Your task to perform on an android device: Clear the shopping cart on walmart.com. Search for "logitech g502" on walmart.com, select the first entry, add it to the cart, then select checkout. Image 0: 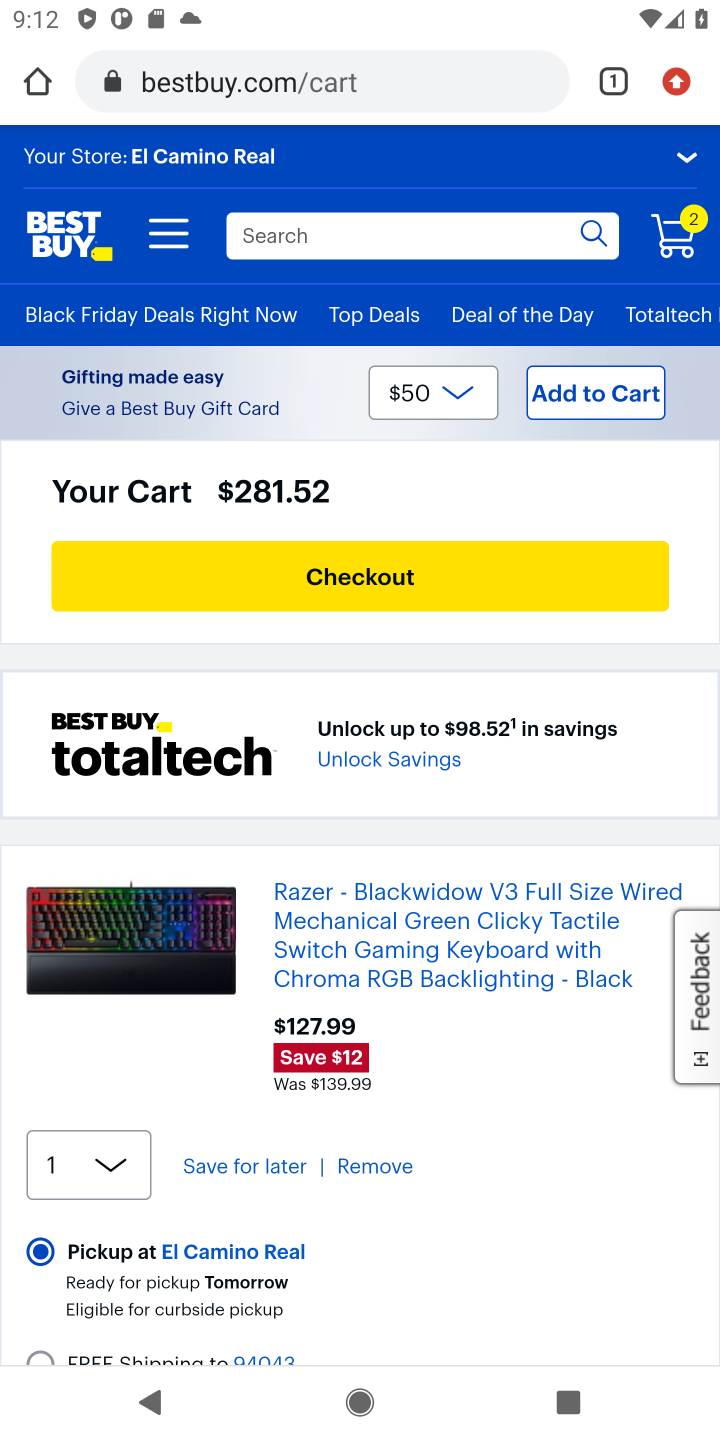
Step 0: click (380, 65)
Your task to perform on an android device: Clear the shopping cart on walmart.com. Search for "logitech g502" on walmart.com, select the first entry, add it to the cart, then select checkout. Image 1: 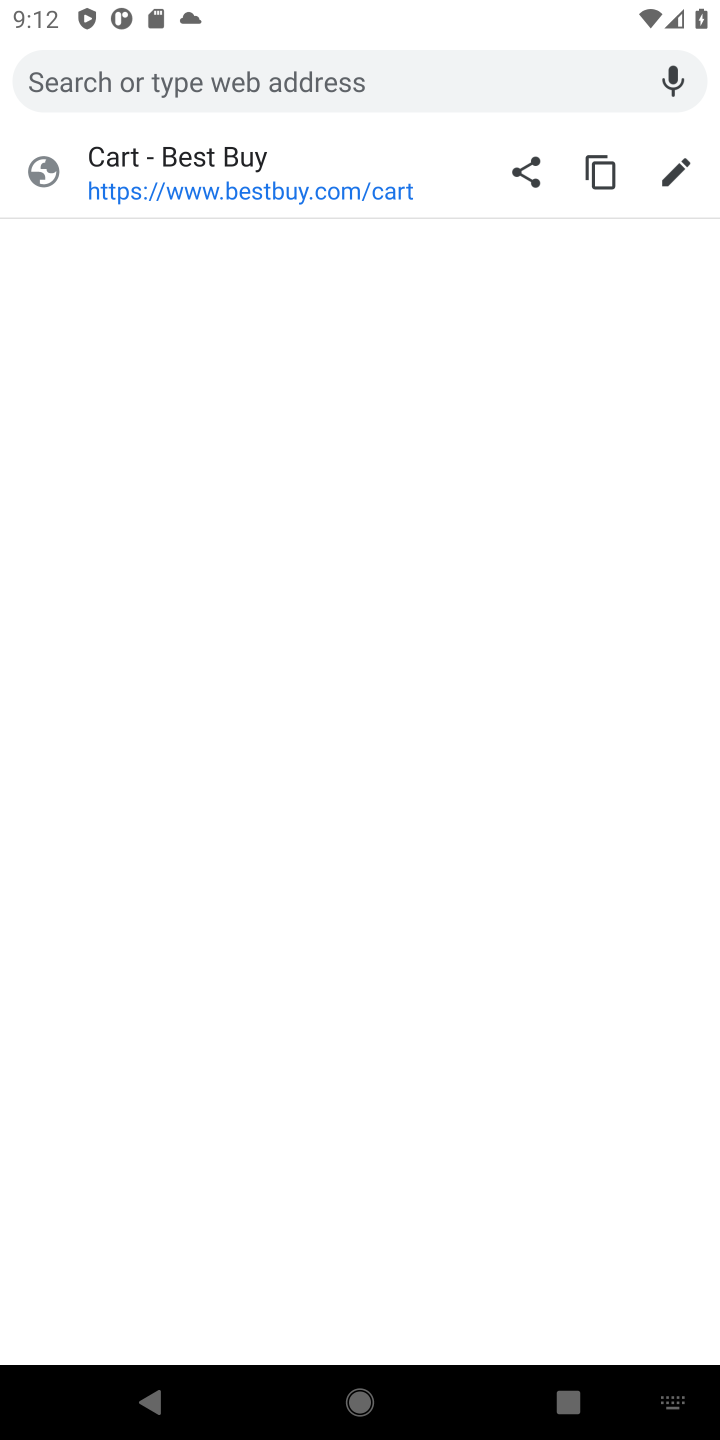
Step 1: type "walmart.com"
Your task to perform on an android device: Clear the shopping cart on walmart.com. Search for "logitech g502" on walmart.com, select the first entry, add it to the cart, then select checkout. Image 2: 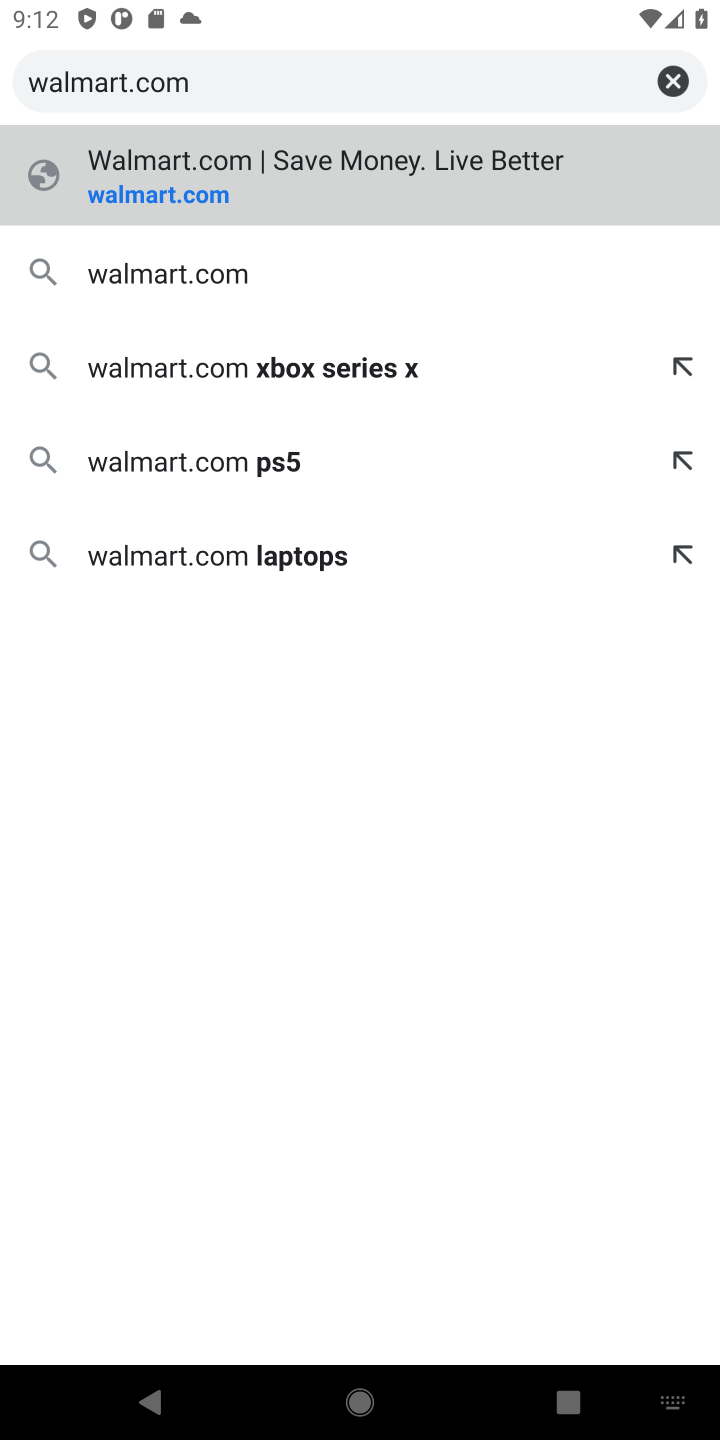
Step 2: click (226, 274)
Your task to perform on an android device: Clear the shopping cart on walmart.com. Search for "logitech g502" on walmart.com, select the first entry, add it to the cart, then select checkout. Image 3: 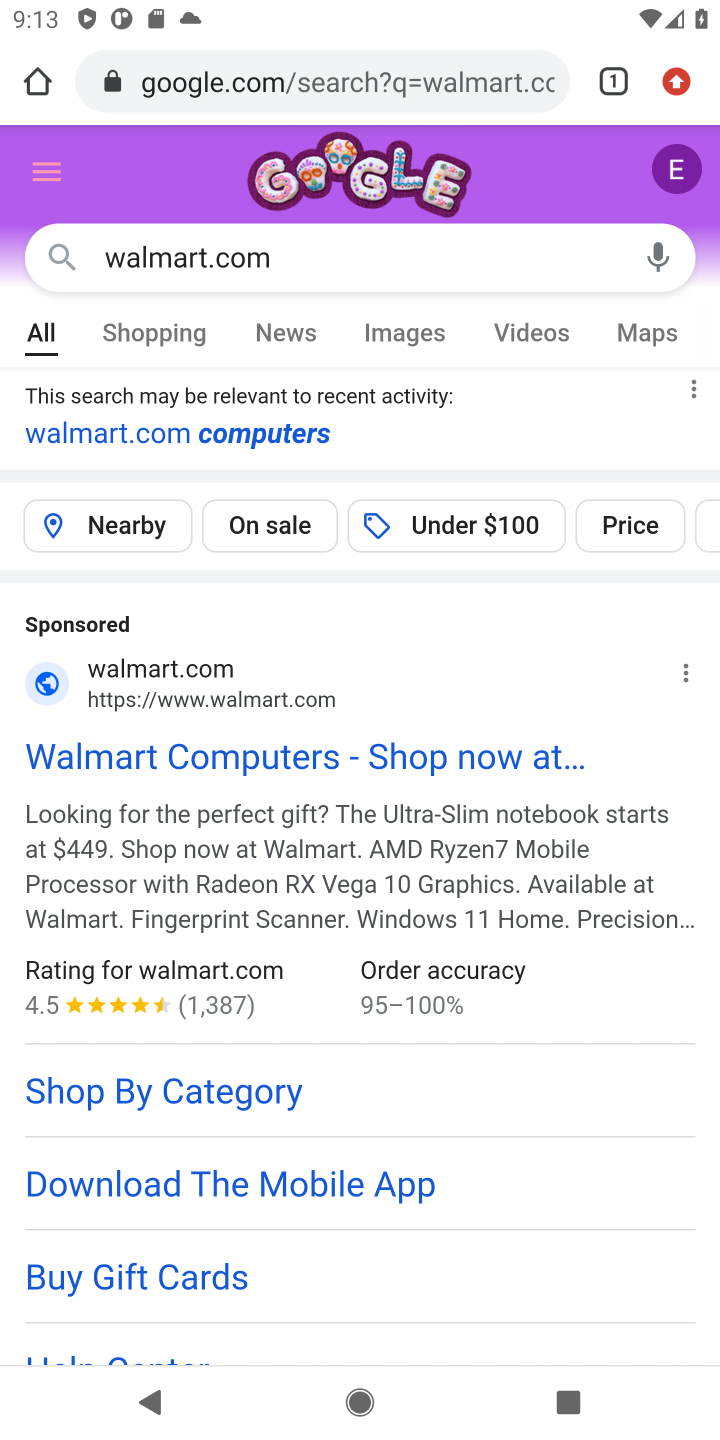
Step 3: drag from (379, 1080) to (425, 348)
Your task to perform on an android device: Clear the shopping cart on walmart.com. Search for "logitech g502" on walmart.com, select the first entry, add it to the cart, then select checkout. Image 4: 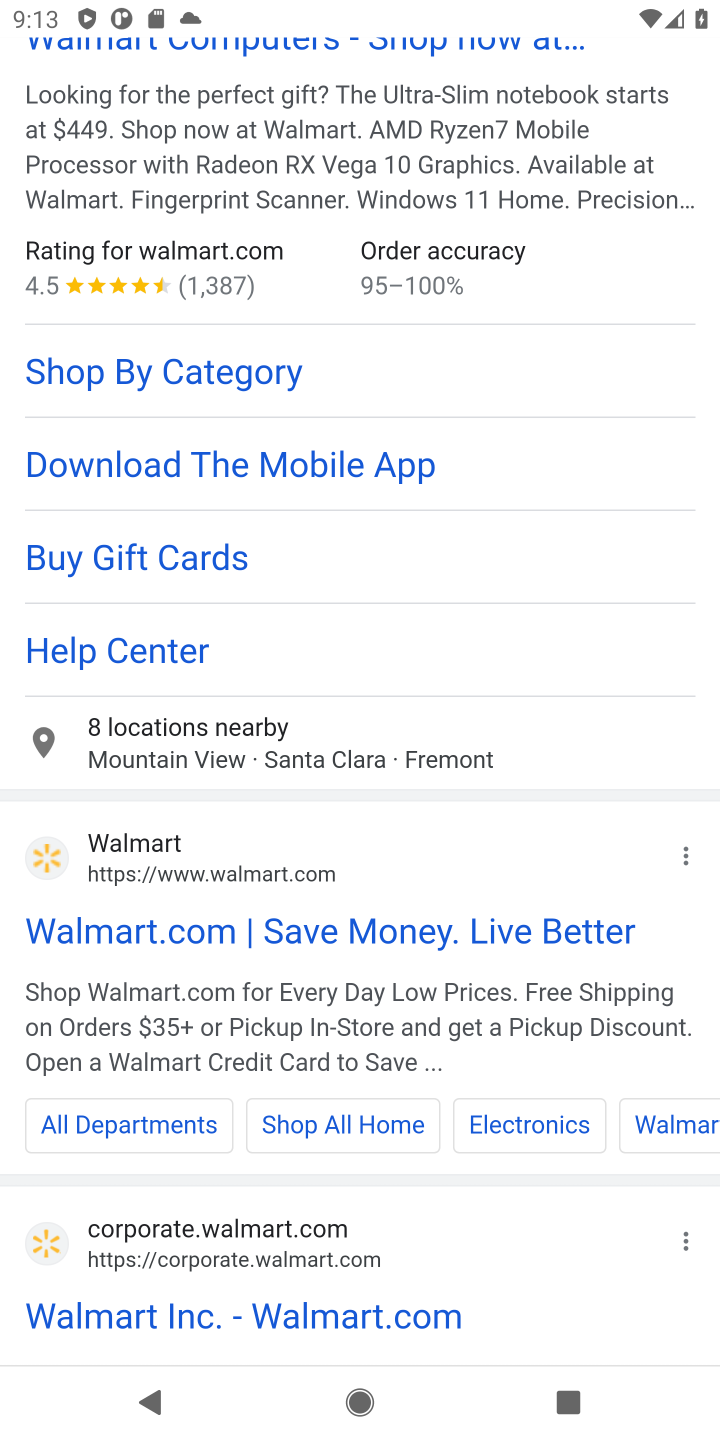
Step 4: click (181, 1318)
Your task to perform on an android device: Clear the shopping cart on walmart.com. Search for "logitech g502" on walmart.com, select the first entry, add it to the cart, then select checkout. Image 5: 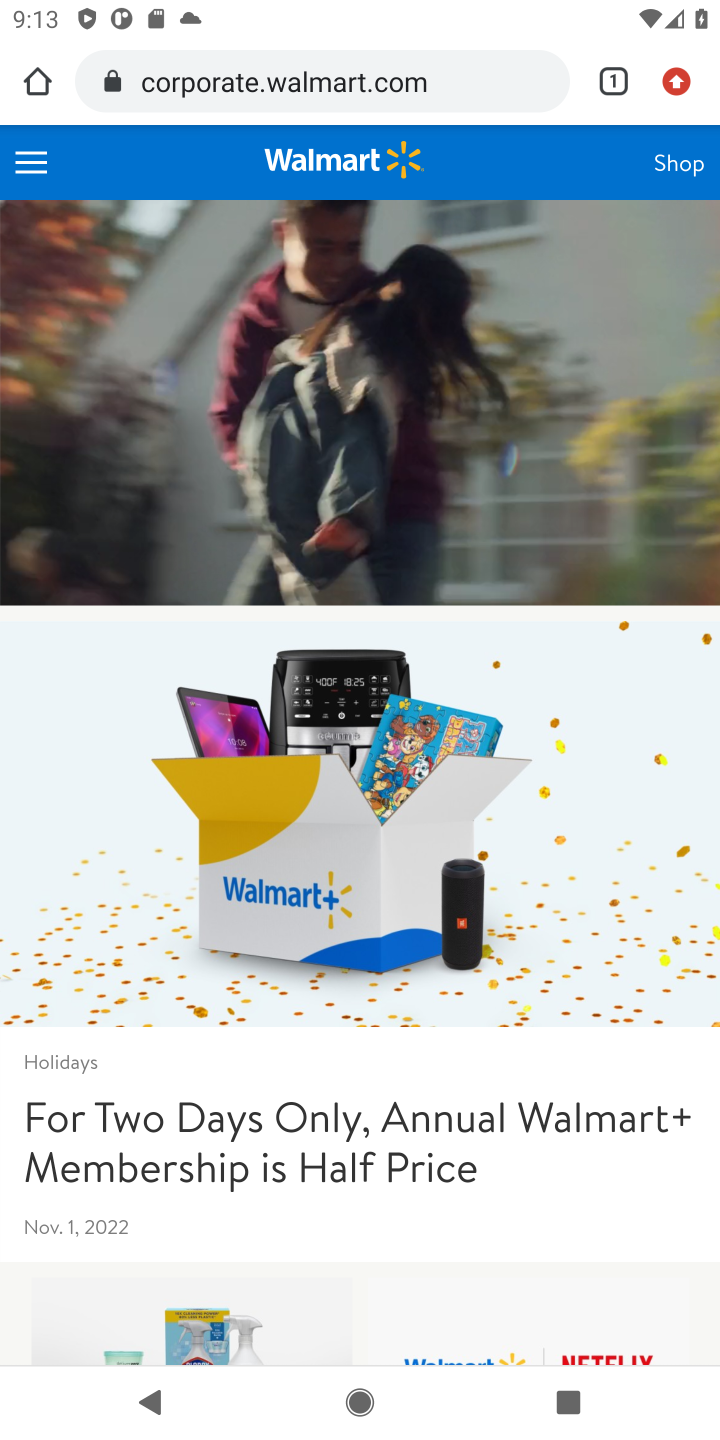
Step 5: click (683, 163)
Your task to perform on an android device: Clear the shopping cart on walmart.com. Search for "logitech g502" on walmart.com, select the first entry, add it to the cart, then select checkout. Image 6: 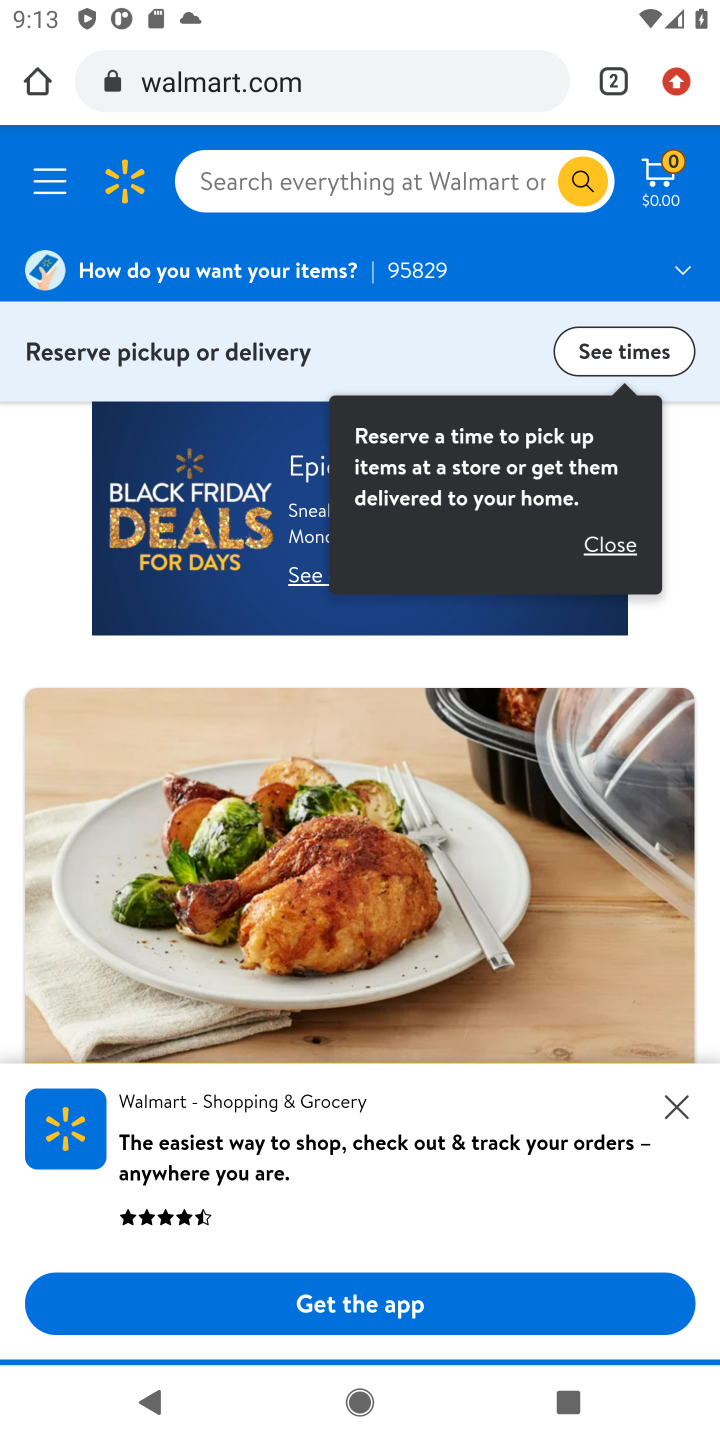
Step 6: click (658, 173)
Your task to perform on an android device: Clear the shopping cart on walmart.com. Search for "logitech g502" on walmart.com, select the first entry, add it to the cart, then select checkout. Image 7: 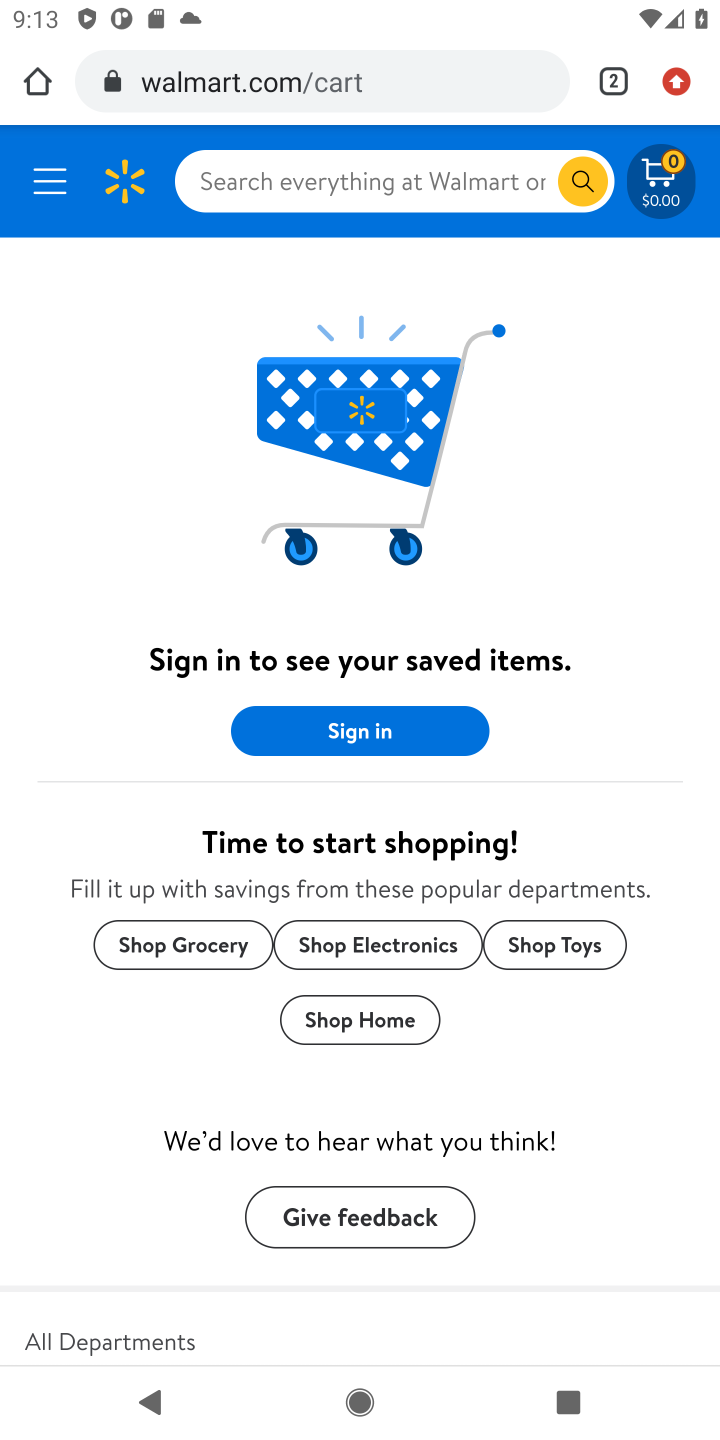
Step 7: click (362, 183)
Your task to perform on an android device: Clear the shopping cart on walmart.com. Search for "logitech g502" on walmart.com, select the first entry, add it to the cart, then select checkout. Image 8: 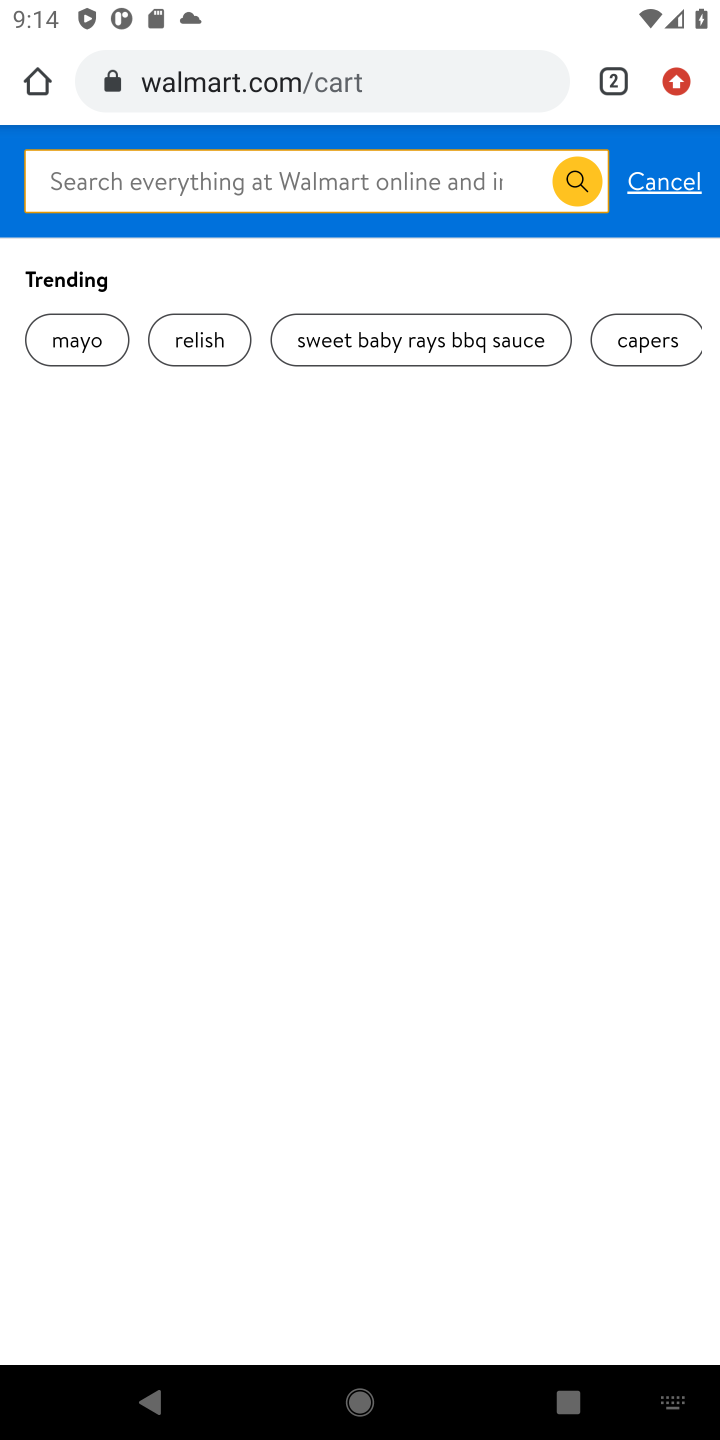
Step 8: type "logitech g502"
Your task to perform on an android device: Clear the shopping cart on walmart.com. Search for "logitech g502" on walmart.com, select the first entry, add it to the cart, then select checkout. Image 9: 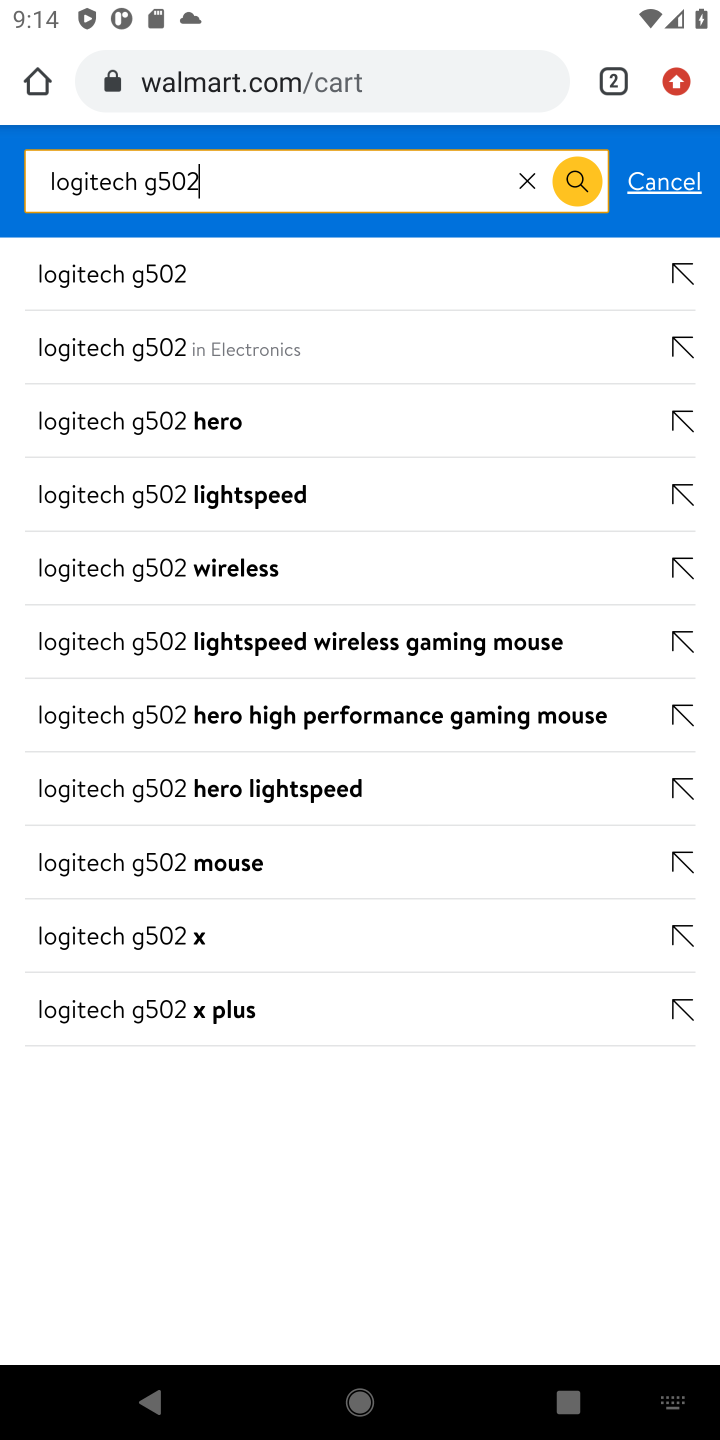
Step 9: click (129, 278)
Your task to perform on an android device: Clear the shopping cart on walmart.com. Search for "logitech g502" on walmart.com, select the first entry, add it to the cart, then select checkout. Image 10: 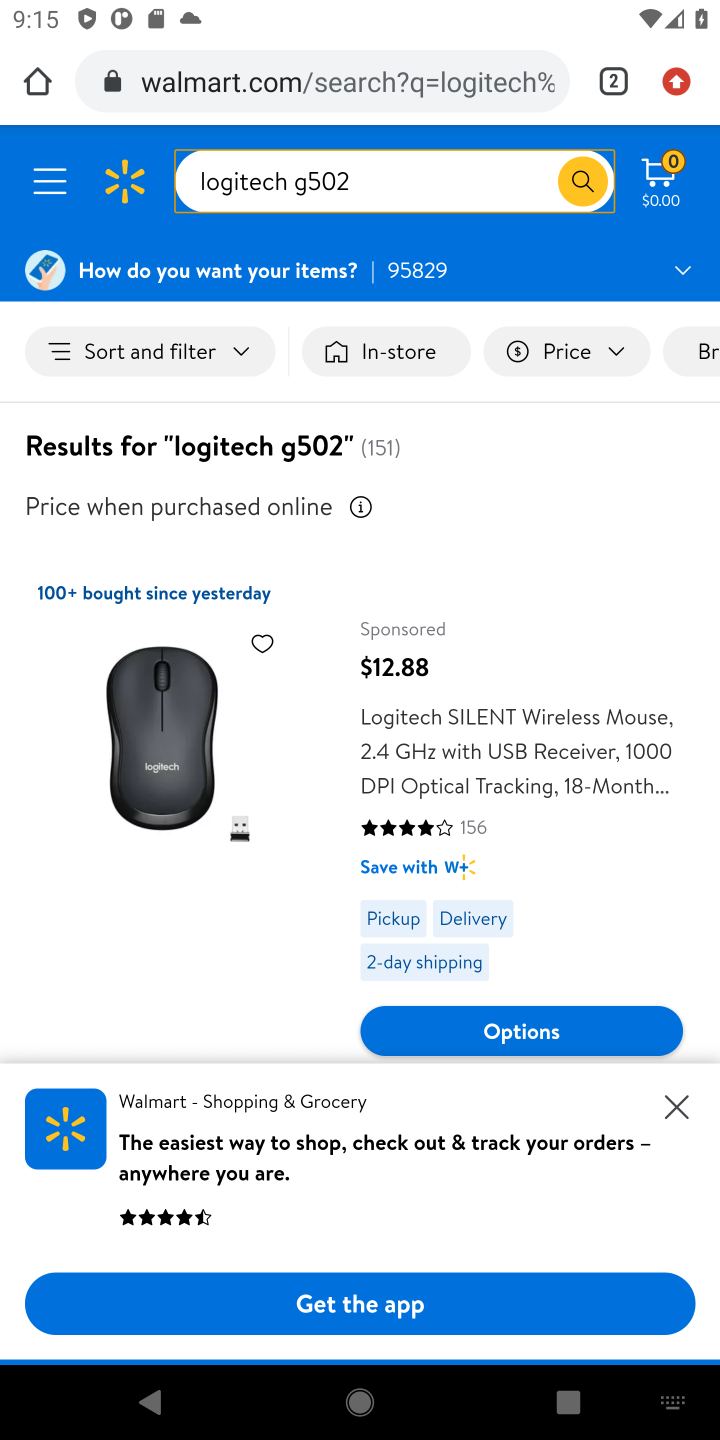
Step 10: click (676, 1113)
Your task to perform on an android device: Clear the shopping cart on walmart.com. Search for "logitech g502" on walmart.com, select the first entry, add it to the cart, then select checkout. Image 11: 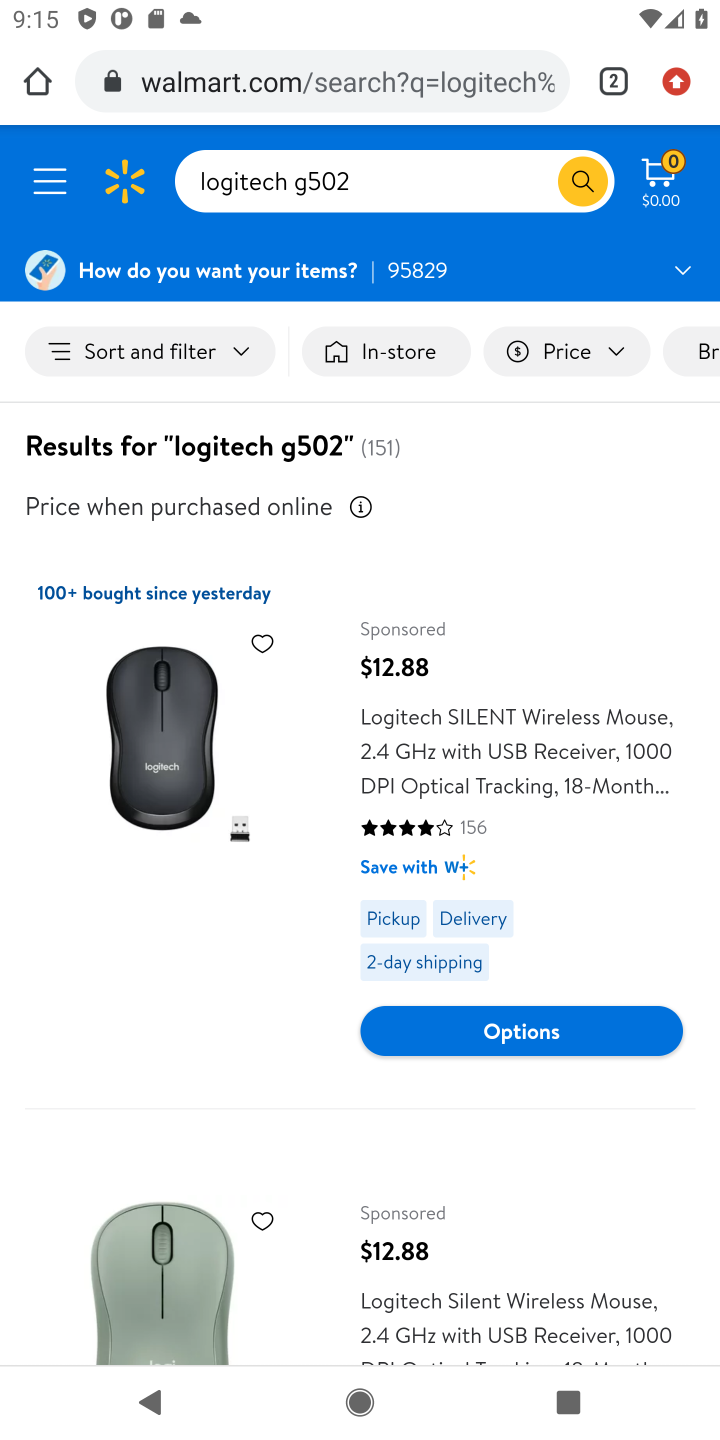
Step 11: click (438, 737)
Your task to perform on an android device: Clear the shopping cart on walmart.com. Search for "logitech g502" on walmart.com, select the first entry, add it to the cart, then select checkout. Image 12: 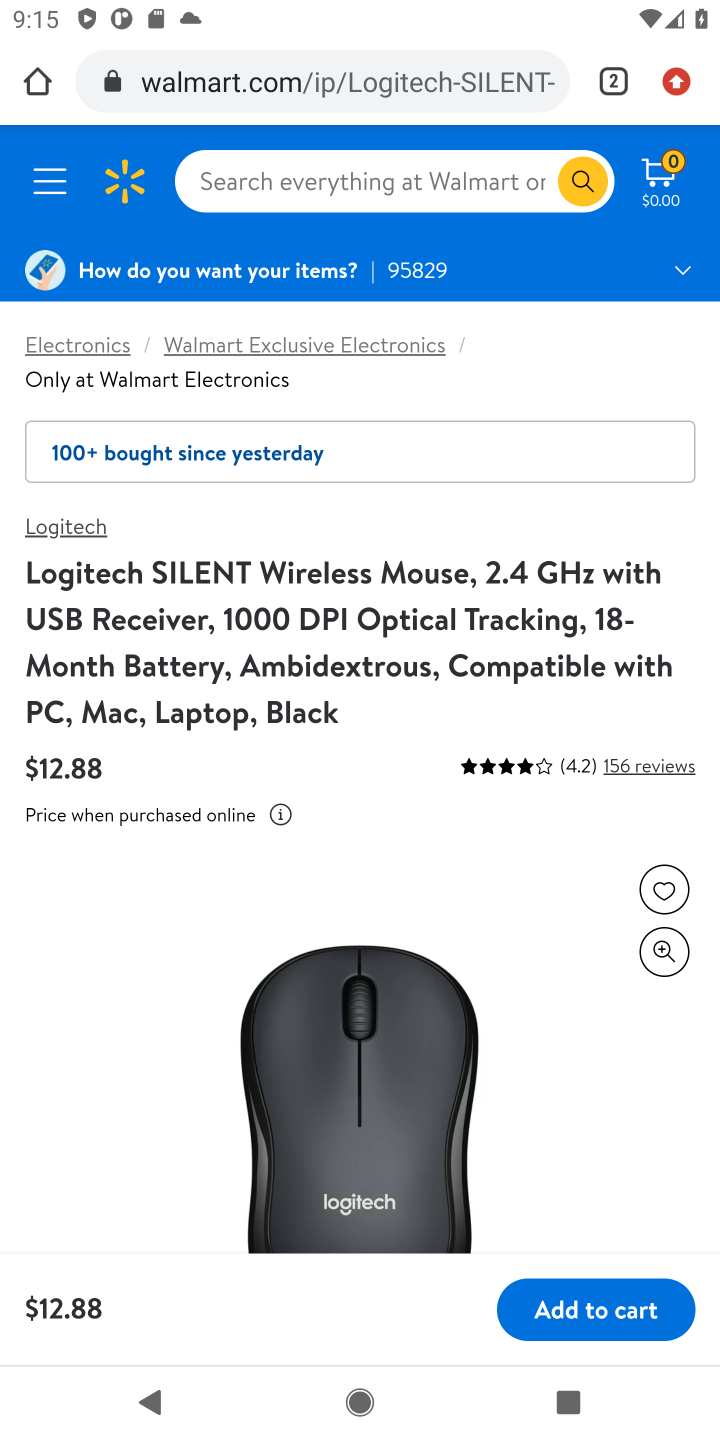
Step 12: click (595, 1324)
Your task to perform on an android device: Clear the shopping cart on walmart.com. Search for "logitech g502" on walmart.com, select the first entry, add it to the cart, then select checkout. Image 13: 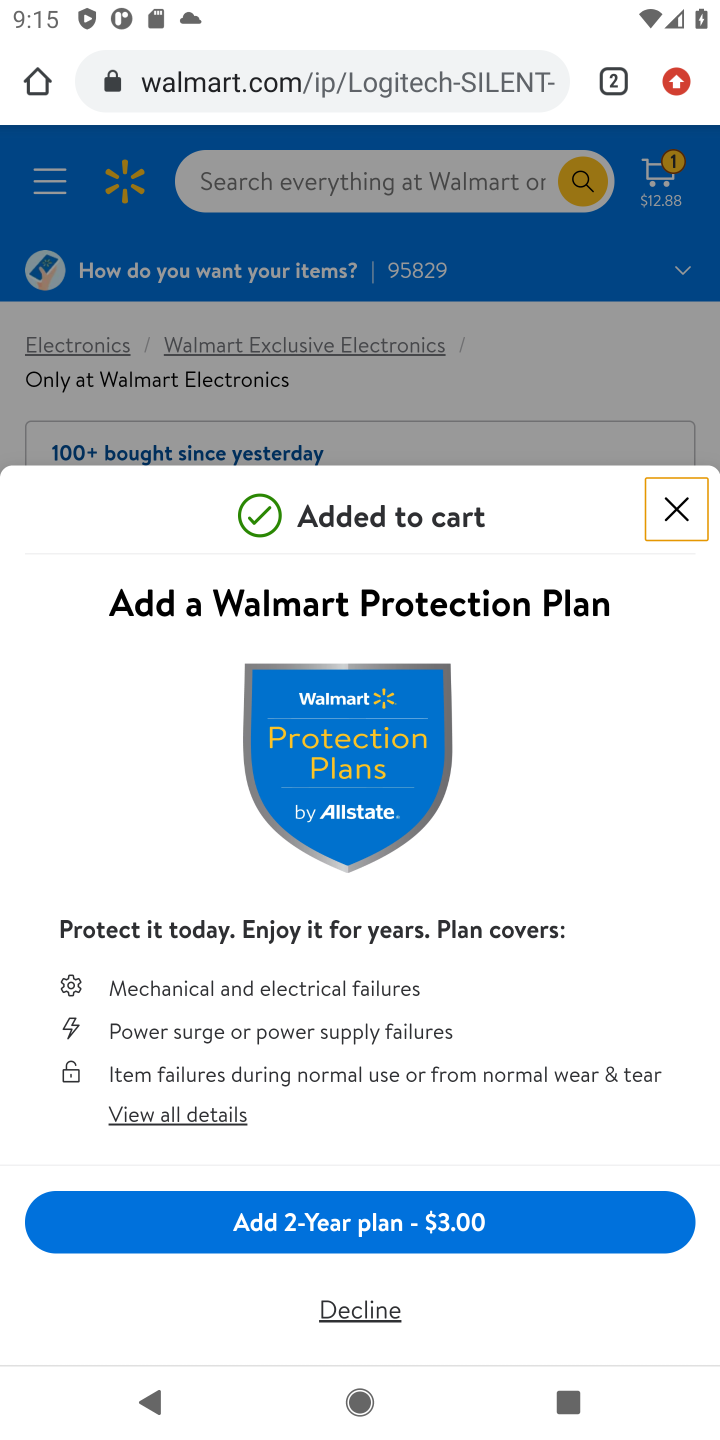
Step 13: click (380, 1312)
Your task to perform on an android device: Clear the shopping cart on walmart.com. Search for "logitech g502" on walmart.com, select the first entry, add it to the cart, then select checkout. Image 14: 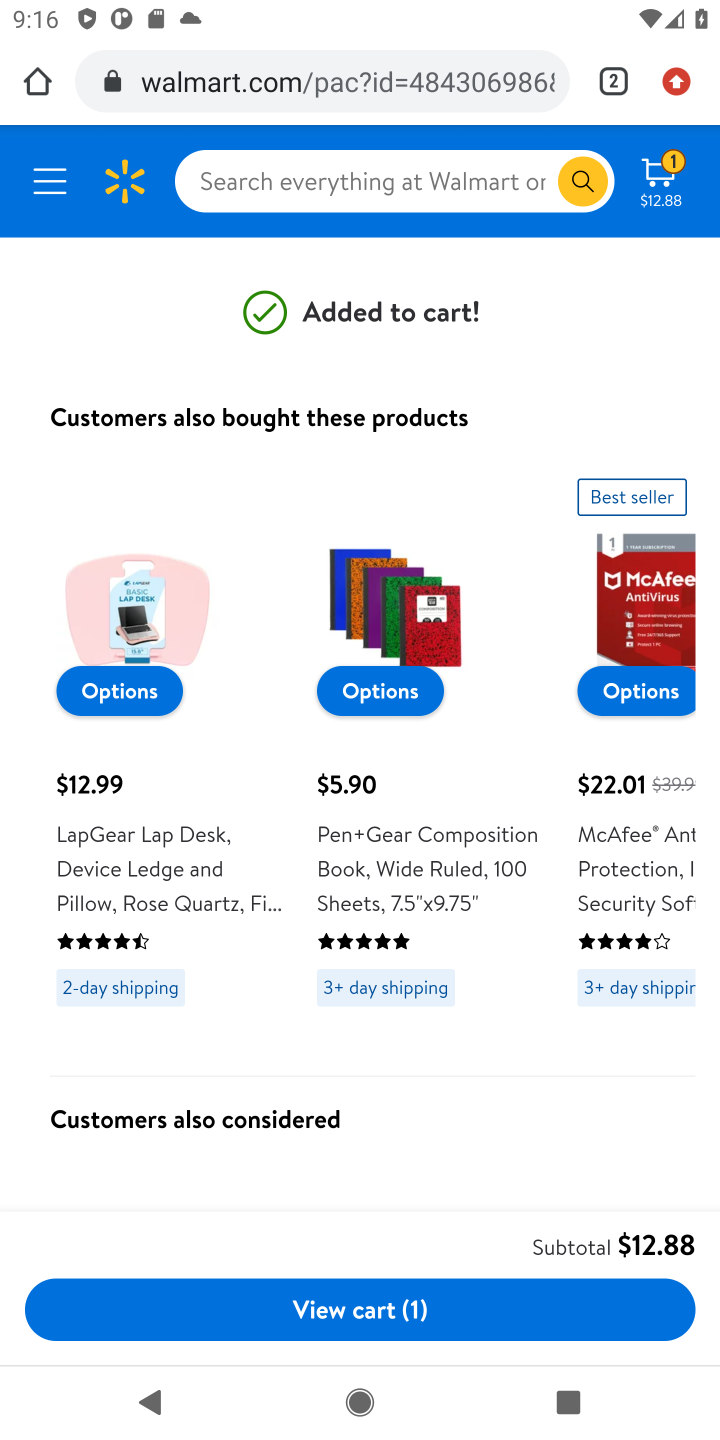
Step 14: click (422, 1313)
Your task to perform on an android device: Clear the shopping cart on walmart.com. Search for "logitech g502" on walmart.com, select the first entry, add it to the cart, then select checkout. Image 15: 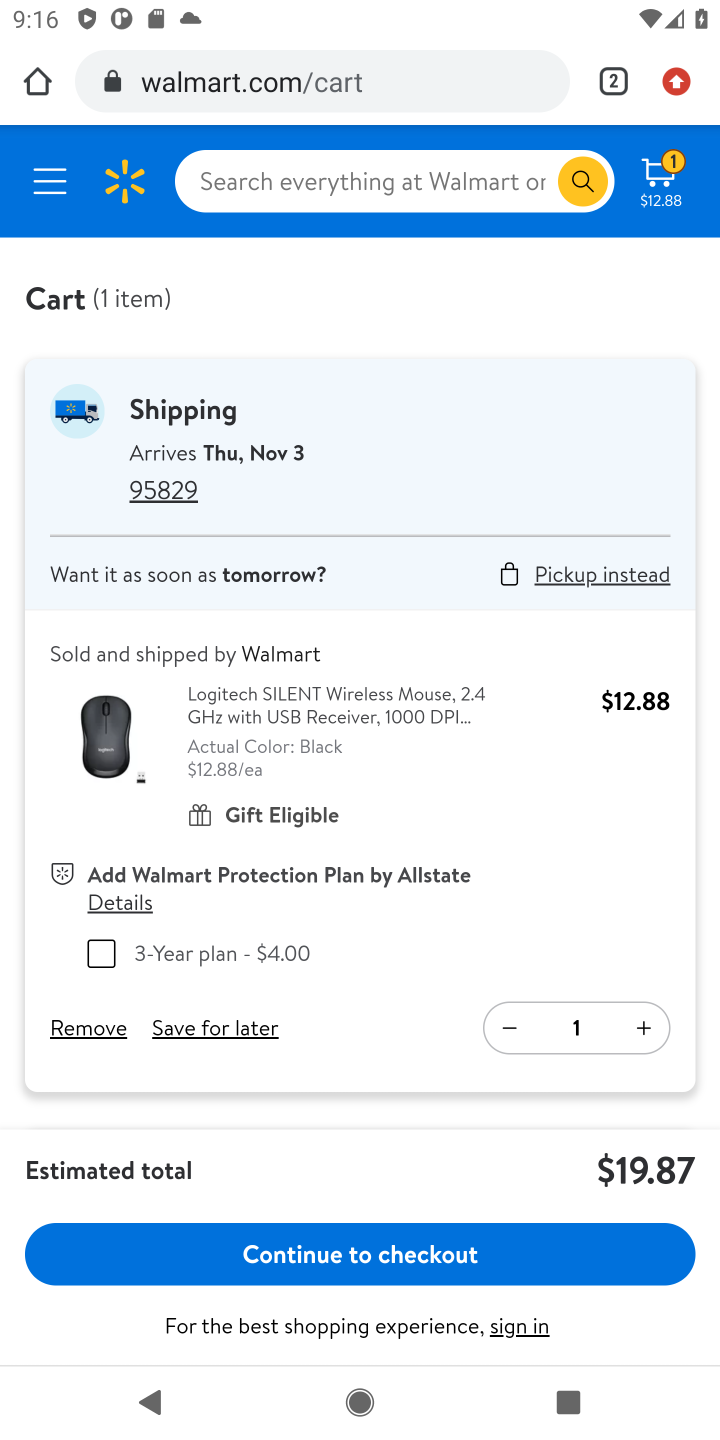
Step 15: click (409, 1262)
Your task to perform on an android device: Clear the shopping cart on walmart.com. Search for "logitech g502" on walmart.com, select the first entry, add it to the cart, then select checkout. Image 16: 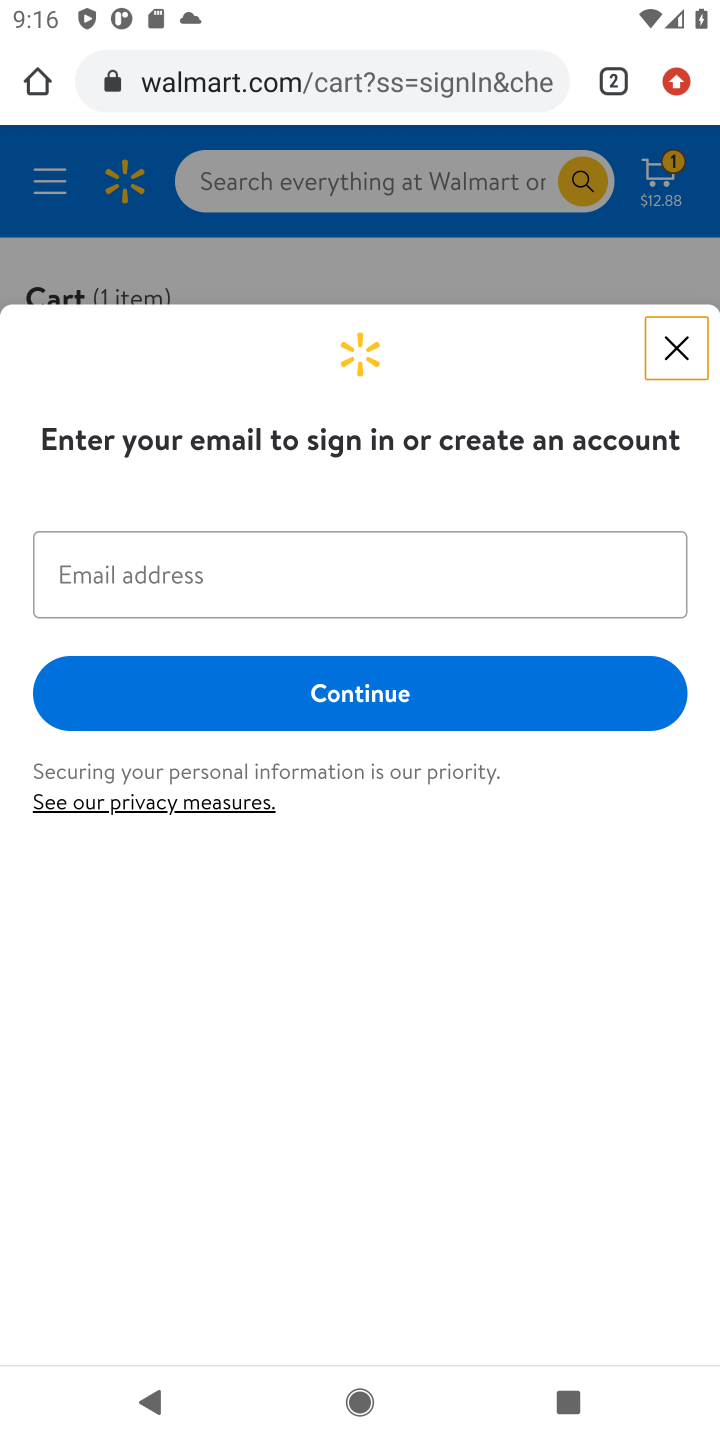
Step 16: task complete